Your task to perform on an android device: turn off airplane mode Image 0: 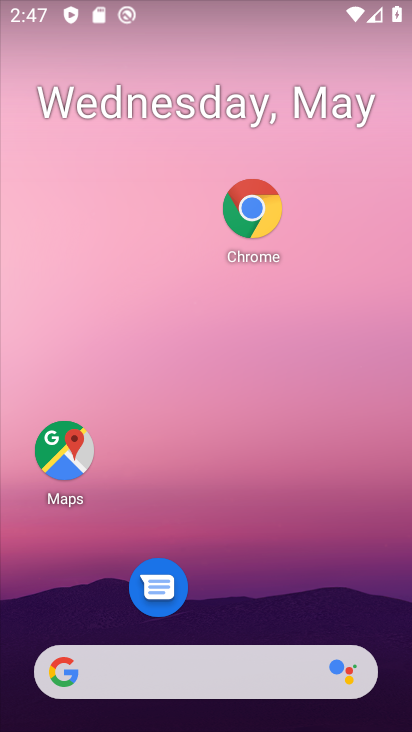
Step 0: drag from (206, 11) to (215, 606)
Your task to perform on an android device: turn off airplane mode Image 1: 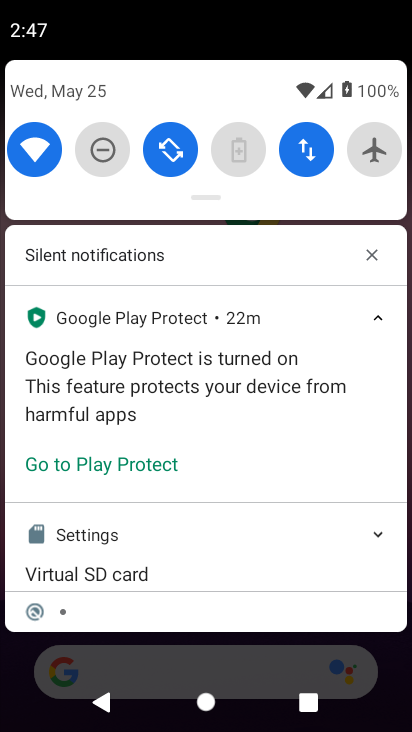
Step 1: task complete